Your task to perform on an android device: show emergency info Image 0: 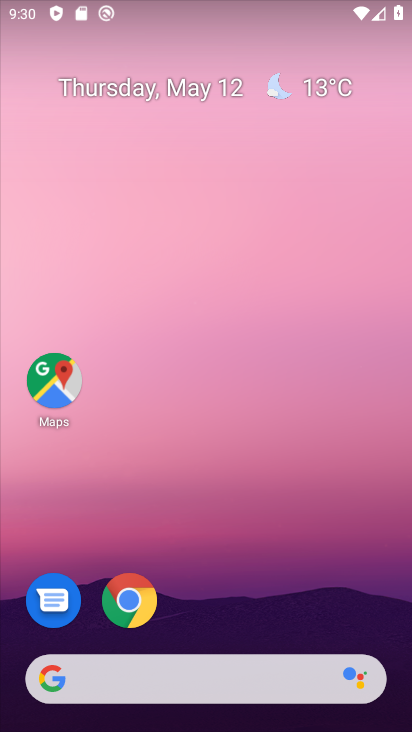
Step 0: drag from (258, 568) to (324, 62)
Your task to perform on an android device: show emergency info Image 1: 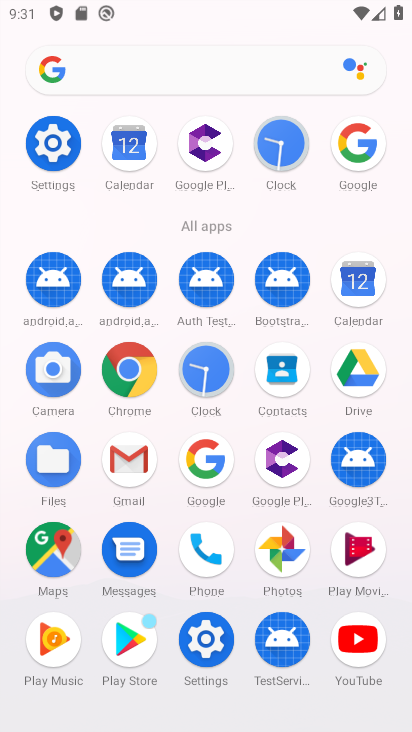
Step 1: click (53, 138)
Your task to perform on an android device: show emergency info Image 2: 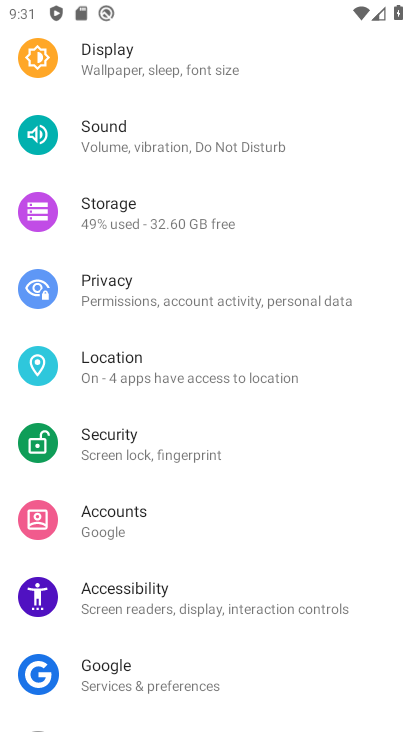
Step 2: drag from (213, 620) to (338, 64)
Your task to perform on an android device: show emergency info Image 3: 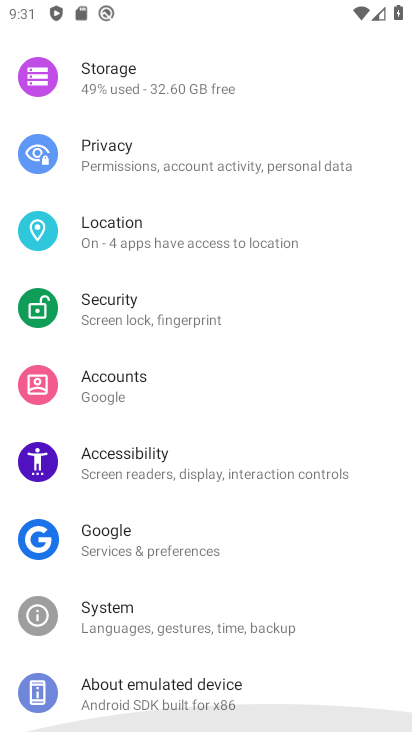
Step 3: drag from (199, 621) to (300, 106)
Your task to perform on an android device: show emergency info Image 4: 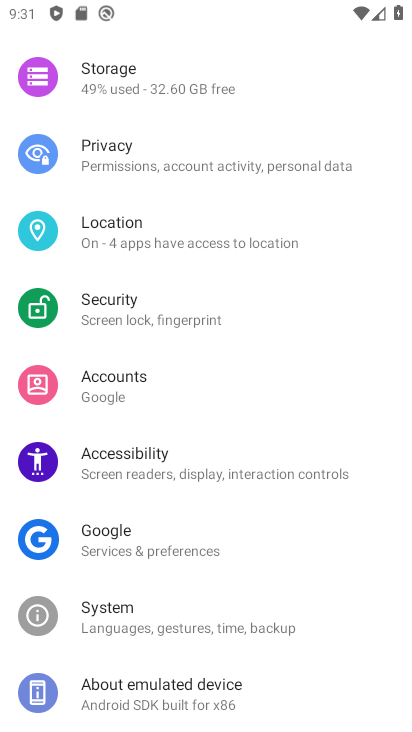
Step 4: drag from (184, 671) to (269, 83)
Your task to perform on an android device: show emergency info Image 5: 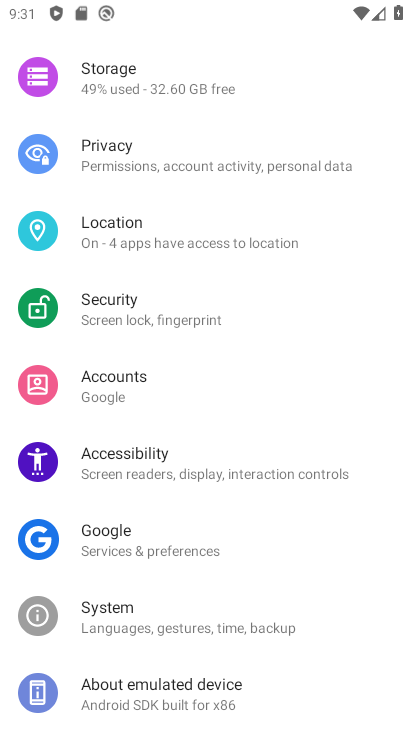
Step 5: drag from (214, 687) to (327, 130)
Your task to perform on an android device: show emergency info Image 6: 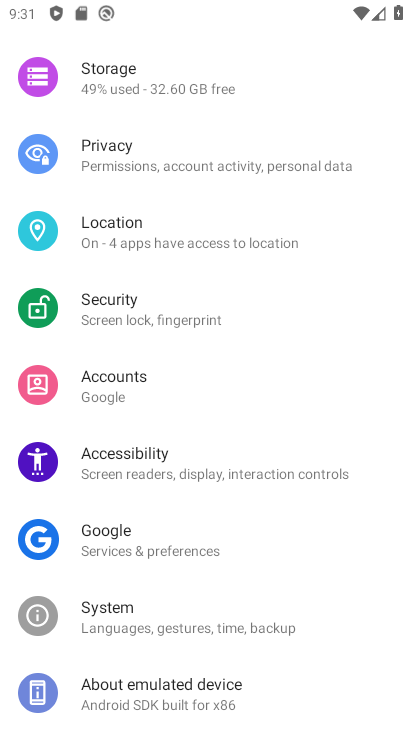
Step 6: click (199, 698)
Your task to perform on an android device: show emergency info Image 7: 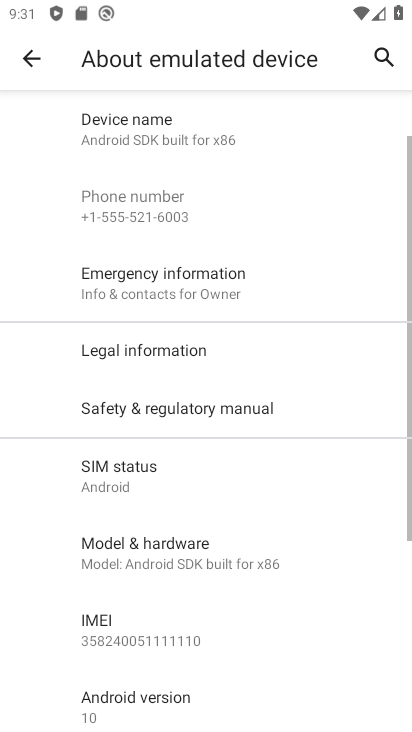
Step 7: click (163, 298)
Your task to perform on an android device: show emergency info Image 8: 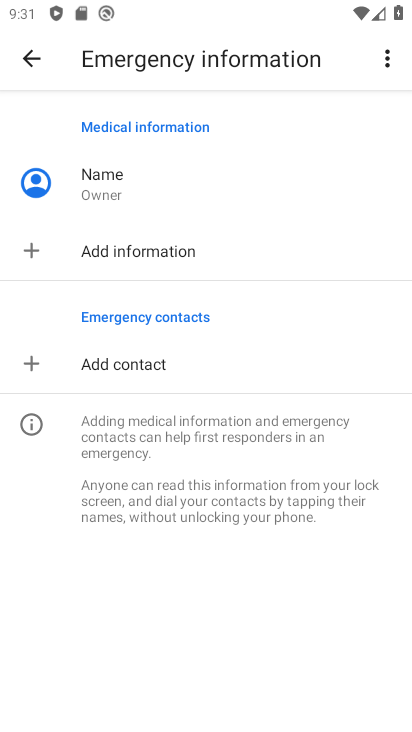
Step 8: task complete